Your task to perform on an android device: Open Youtube and go to the subscriptions tab Image 0: 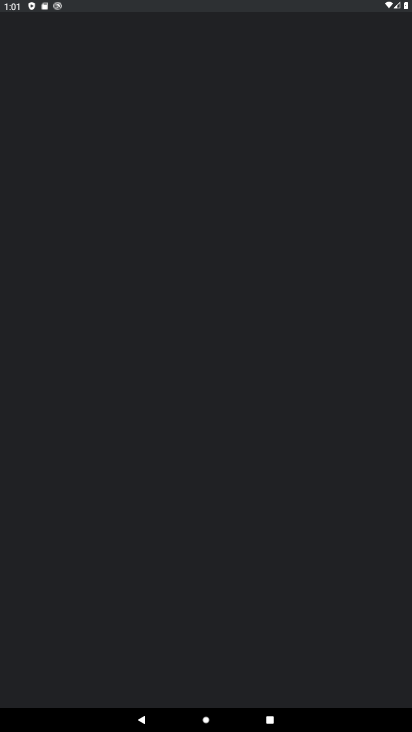
Step 0: press home button
Your task to perform on an android device: Open Youtube and go to the subscriptions tab Image 1: 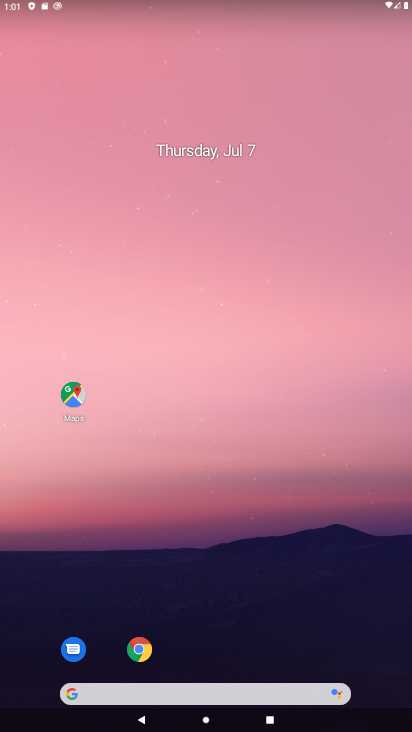
Step 1: drag from (374, 662) to (342, 172)
Your task to perform on an android device: Open Youtube and go to the subscriptions tab Image 2: 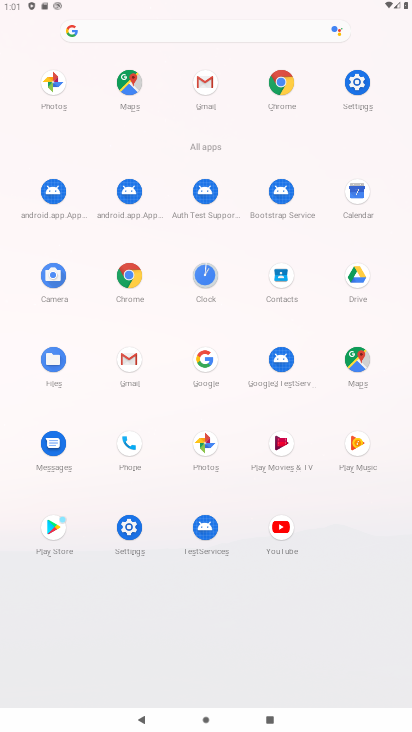
Step 2: click (279, 526)
Your task to perform on an android device: Open Youtube and go to the subscriptions tab Image 3: 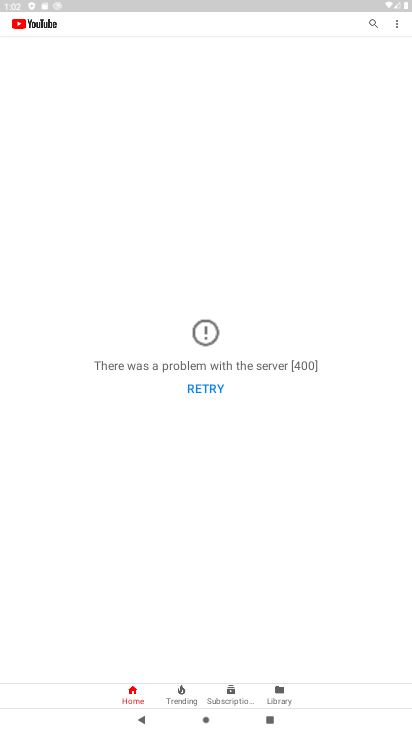
Step 3: click (228, 694)
Your task to perform on an android device: Open Youtube and go to the subscriptions tab Image 4: 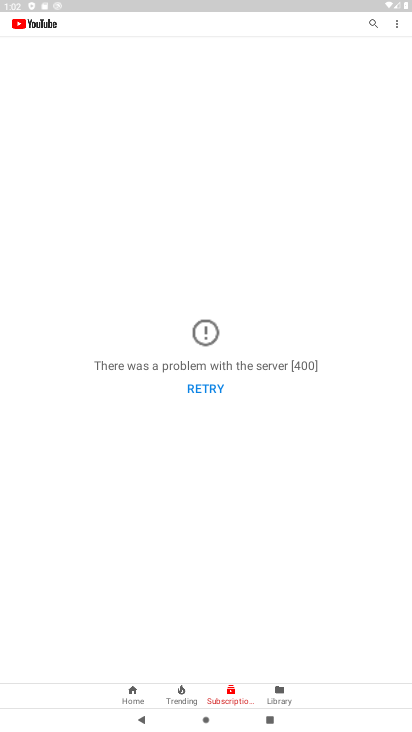
Step 4: click (201, 388)
Your task to perform on an android device: Open Youtube and go to the subscriptions tab Image 5: 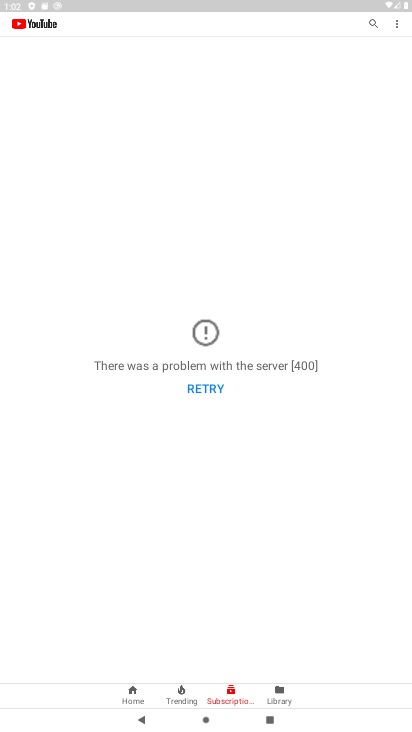
Step 5: task complete